Your task to perform on an android device: move an email to a new category in the gmail app Image 0: 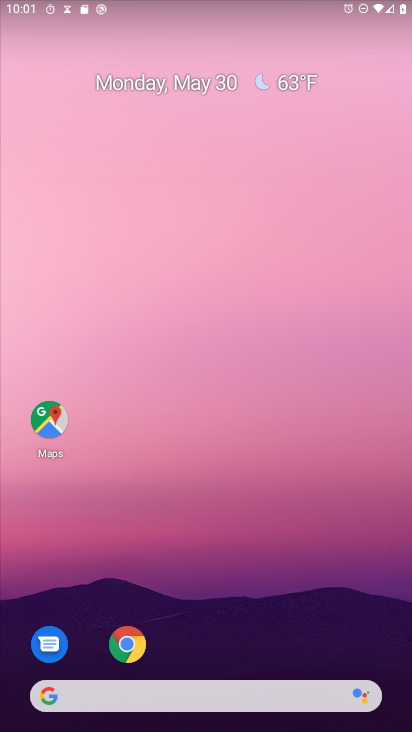
Step 0: drag from (211, 643) to (194, 34)
Your task to perform on an android device: move an email to a new category in the gmail app Image 1: 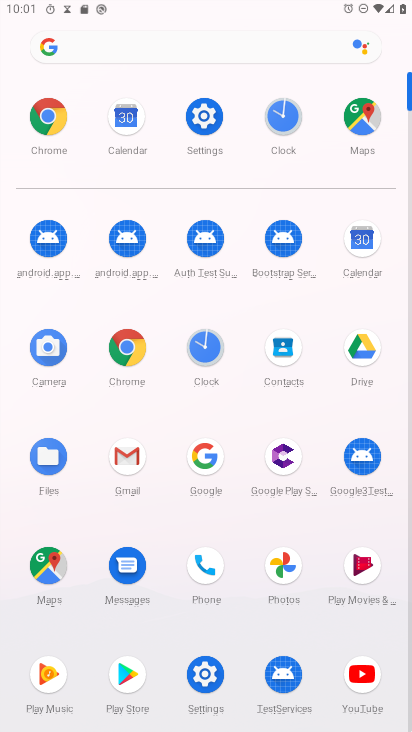
Step 1: click (126, 459)
Your task to perform on an android device: move an email to a new category in the gmail app Image 2: 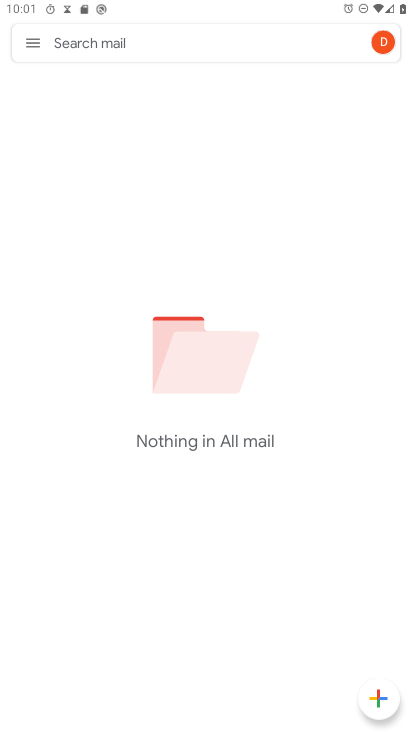
Step 2: click (32, 38)
Your task to perform on an android device: move an email to a new category in the gmail app Image 3: 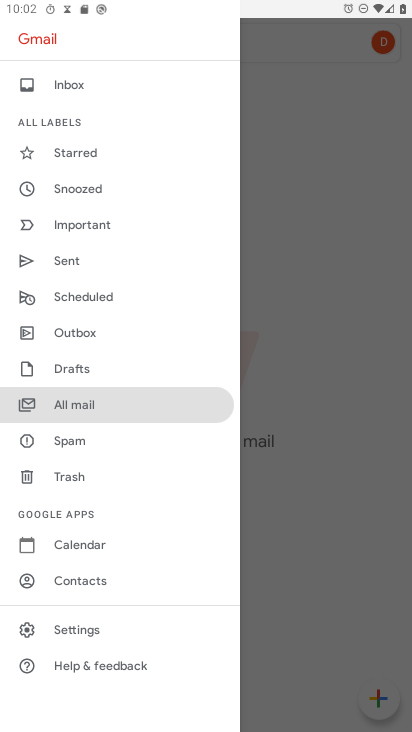
Step 3: click (81, 409)
Your task to perform on an android device: move an email to a new category in the gmail app Image 4: 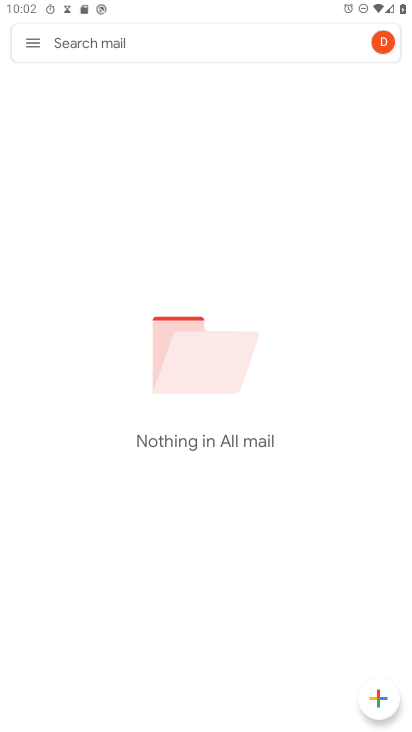
Step 4: task complete